Your task to perform on an android device: Go to Yahoo.com Image 0: 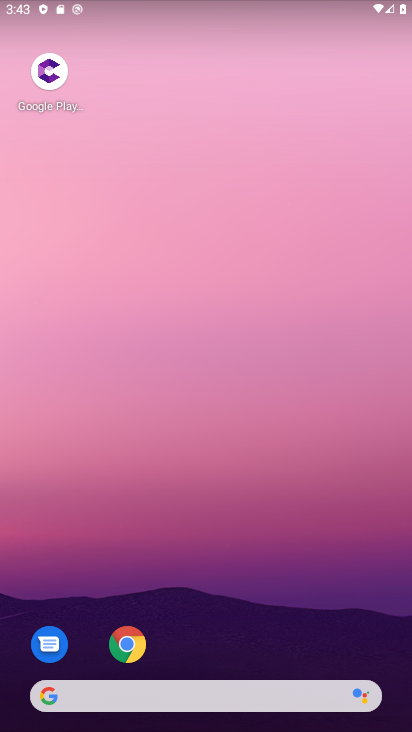
Step 0: click (134, 641)
Your task to perform on an android device: Go to Yahoo.com Image 1: 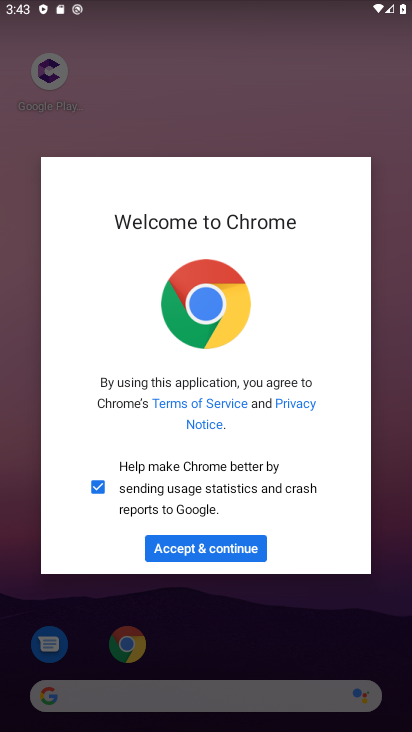
Step 1: click (195, 554)
Your task to perform on an android device: Go to Yahoo.com Image 2: 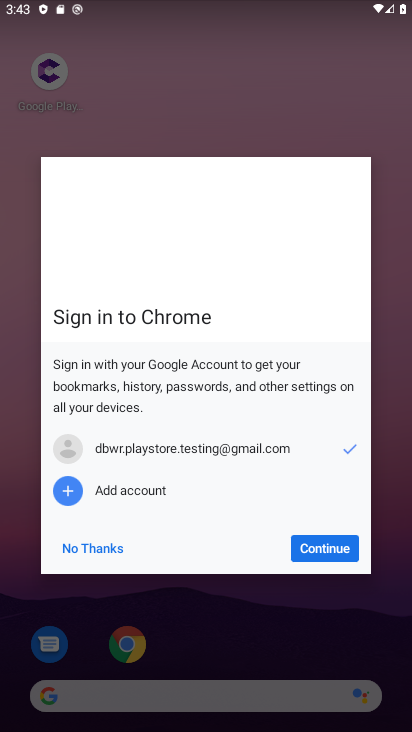
Step 2: click (319, 553)
Your task to perform on an android device: Go to Yahoo.com Image 3: 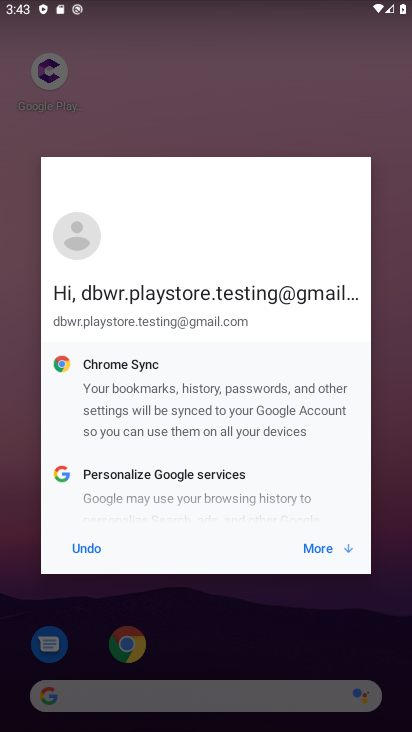
Step 3: click (325, 556)
Your task to perform on an android device: Go to Yahoo.com Image 4: 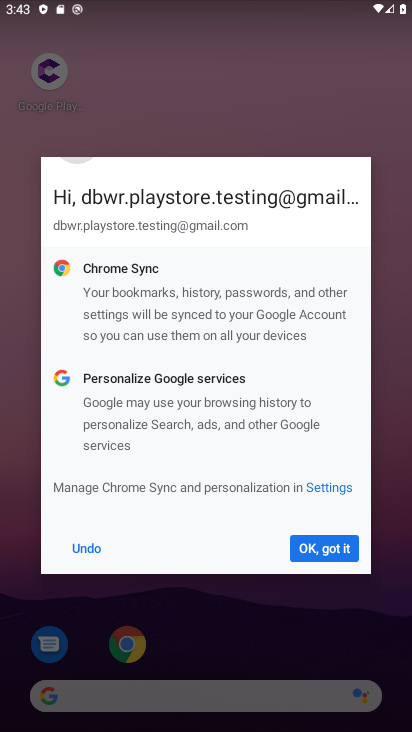
Step 4: click (316, 551)
Your task to perform on an android device: Go to Yahoo.com Image 5: 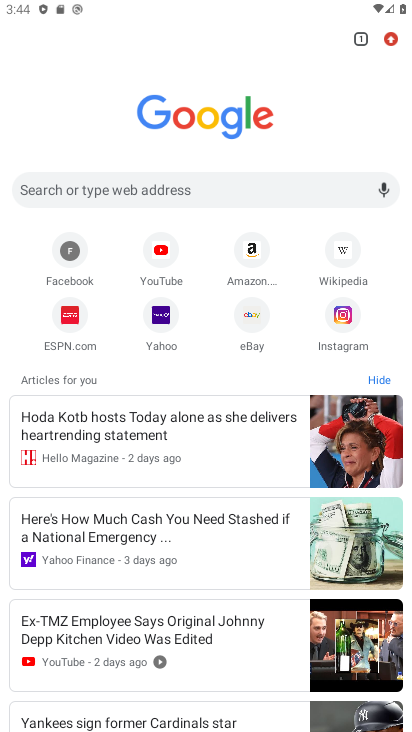
Step 5: click (169, 315)
Your task to perform on an android device: Go to Yahoo.com Image 6: 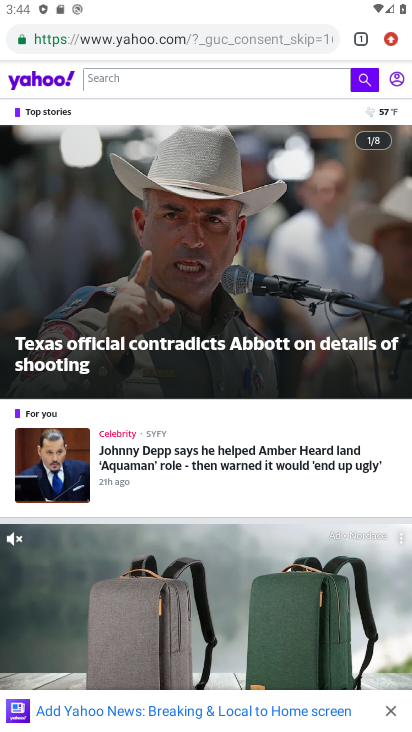
Step 6: task complete